Your task to perform on an android device: open app "Indeed Job Search" (install if not already installed) and go to login screen Image 0: 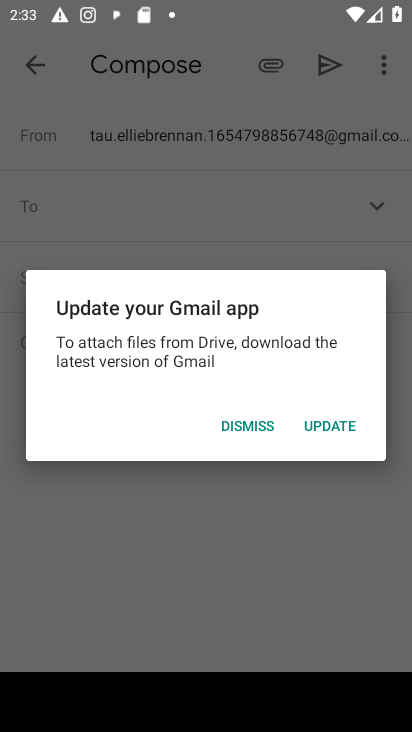
Step 0: press home button
Your task to perform on an android device: open app "Indeed Job Search" (install if not already installed) and go to login screen Image 1: 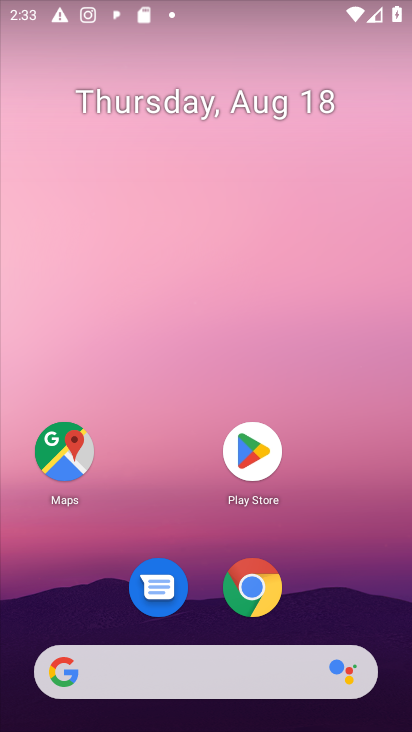
Step 1: click (255, 442)
Your task to perform on an android device: open app "Indeed Job Search" (install if not already installed) and go to login screen Image 2: 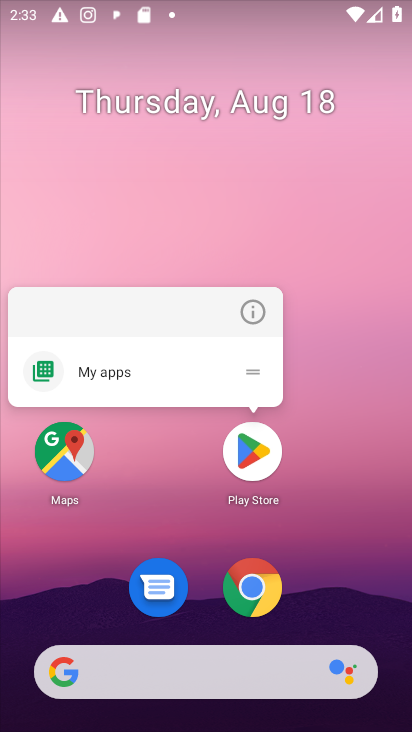
Step 2: click (255, 443)
Your task to perform on an android device: open app "Indeed Job Search" (install if not already installed) and go to login screen Image 3: 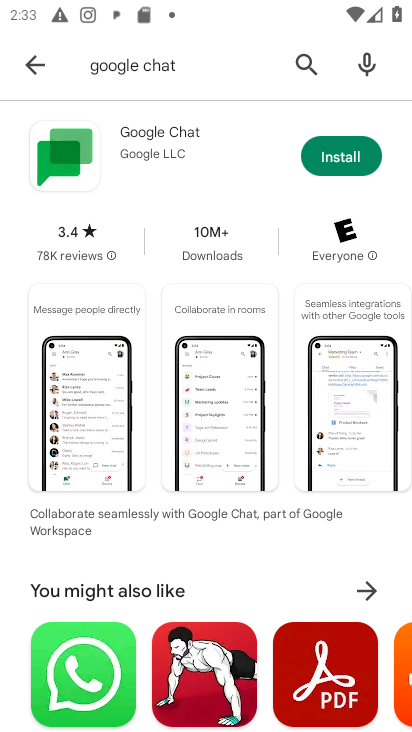
Step 3: click (304, 53)
Your task to perform on an android device: open app "Indeed Job Search" (install if not already installed) and go to login screen Image 4: 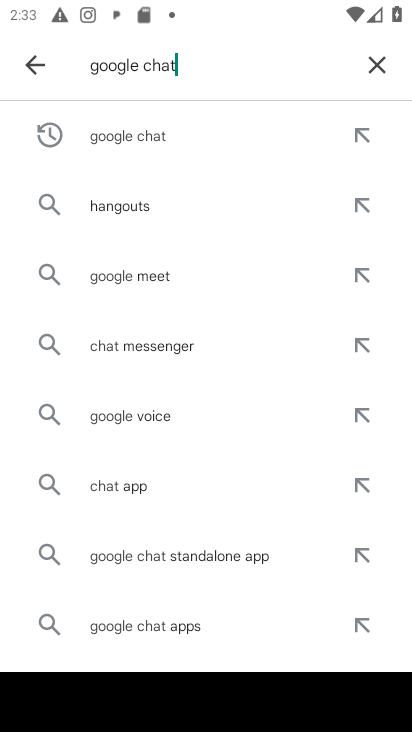
Step 4: click (383, 63)
Your task to perform on an android device: open app "Indeed Job Search" (install if not already installed) and go to login screen Image 5: 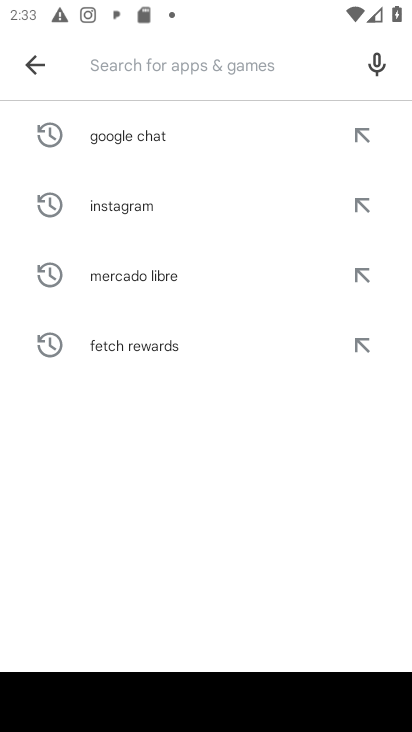
Step 5: type "Indeed Job Search"
Your task to perform on an android device: open app "Indeed Job Search" (install if not already installed) and go to login screen Image 6: 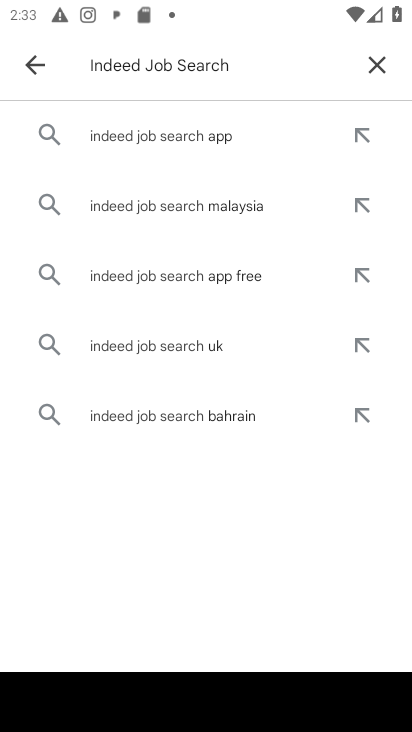
Step 6: click (177, 137)
Your task to perform on an android device: open app "Indeed Job Search" (install if not already installed) and go to login screen Image 7: 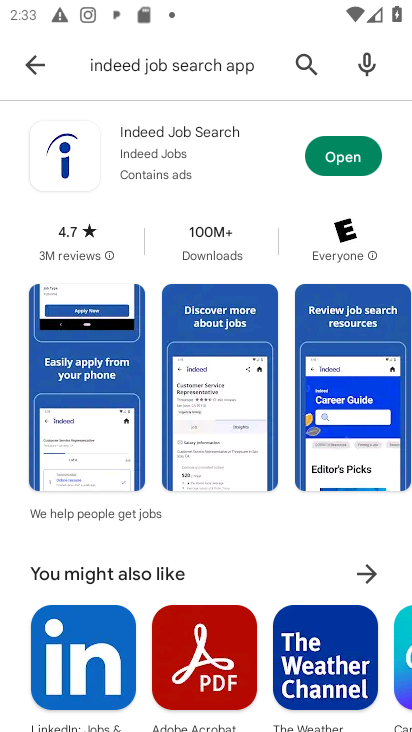
Step 7: click (356, 151)
Your task to perform on an android device: open app "Indeed Job Search" (install if not already installed) and go to login screen Image 8: 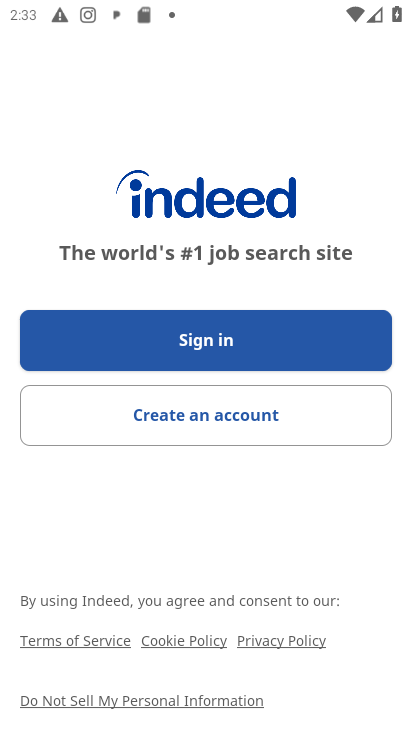
Step 8: task complete